Your task to perform on an android device: delete browsing data in the chrome app Image 0: 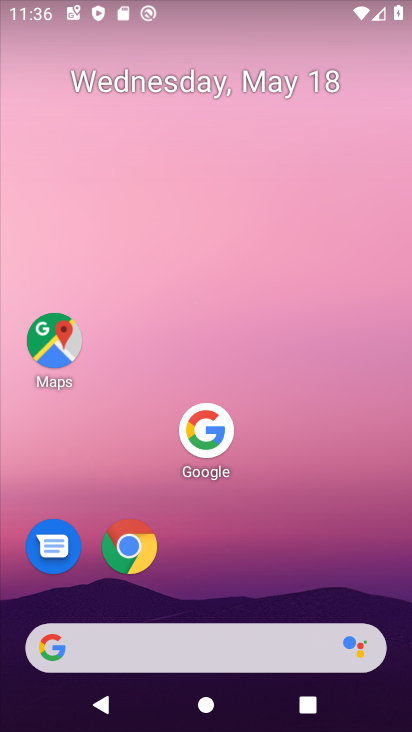
Step 0: click (133, 548)
Your task to perform on an android device: delete browsing data in the chrome app Image 1: 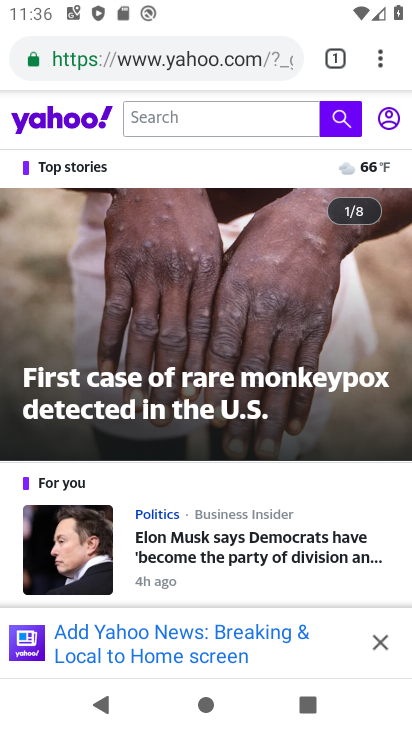
Step 1: click (371, 46)
Your task to perform on an android device: delete browsing data in the chrome app Image 2: 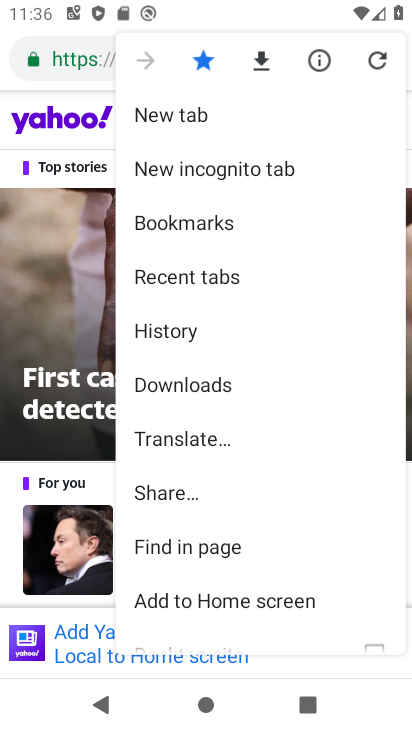
Step 2: click (173, 325)
Your task to perform on an android device: delete browsing data in the chrome app Image 3: 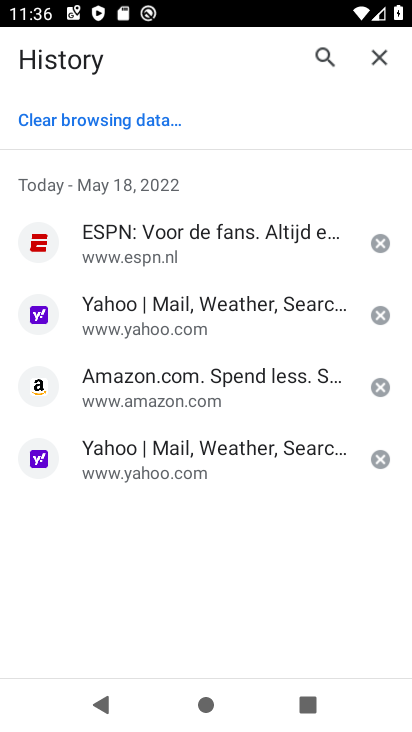
Step 3: click (171, 120)
Your task to perform on an android device: delete browsing data in the chrome app Image 4: 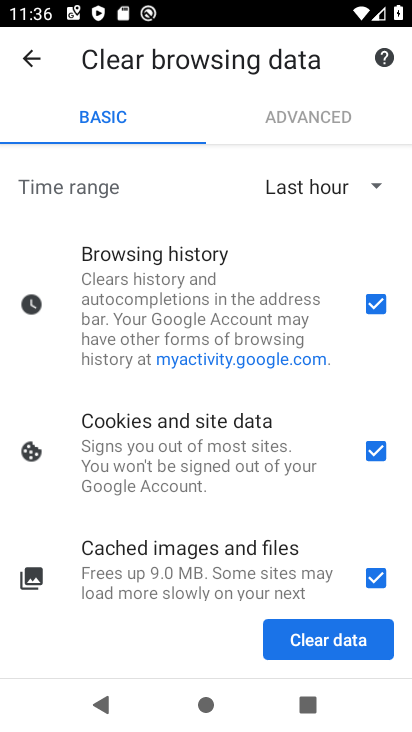
Step 4: click (372, 459)
Your task to perform on an android device: delete browsing data in the chrome app Image 5: 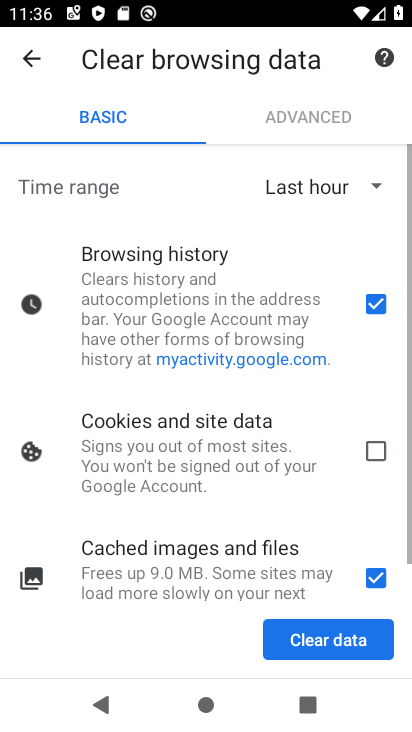
Step 5: click (381, 569)
Your task to perform on an android device: delete browsing data in the chrome app Image 6: 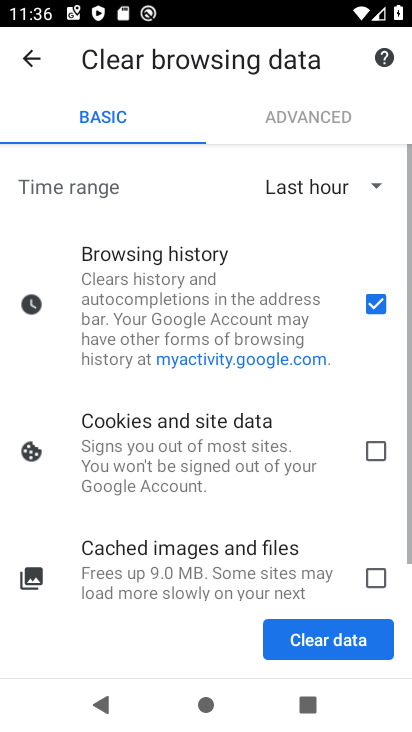
Step 6: click (340, 631)
Your task to perform on an android device: delete browsing data in the chrome app Image 7: 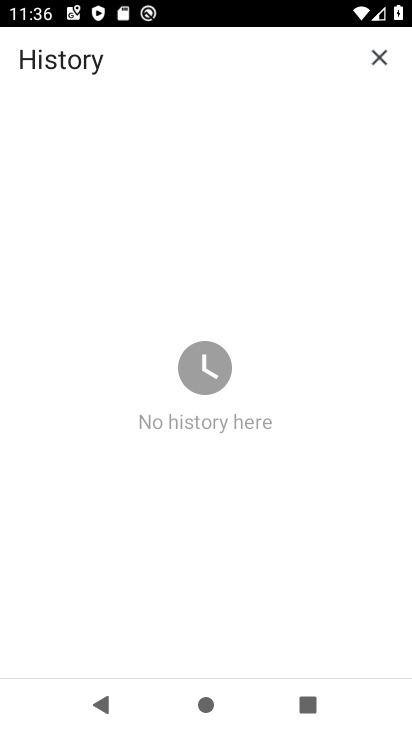
Step 7: task complete